Your task to perform on an android device: Open the calendar app, open the side menu, and click the "Day" option Image 0: 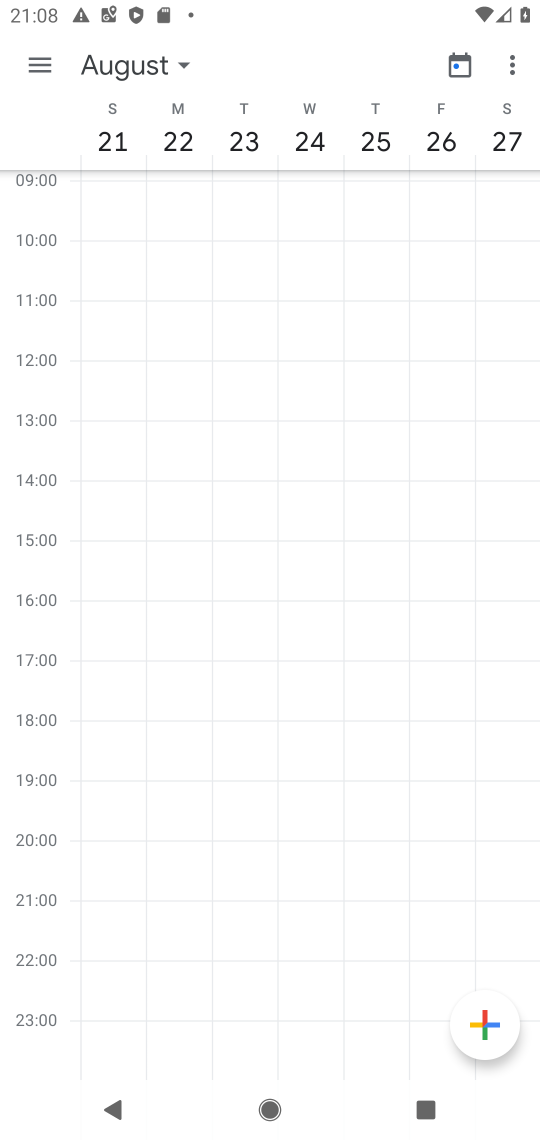
Step 0: click (38, 56)
Your task to perform on an android device: Open the calendar app, open the side menu, and click the "Day" option Image 1: 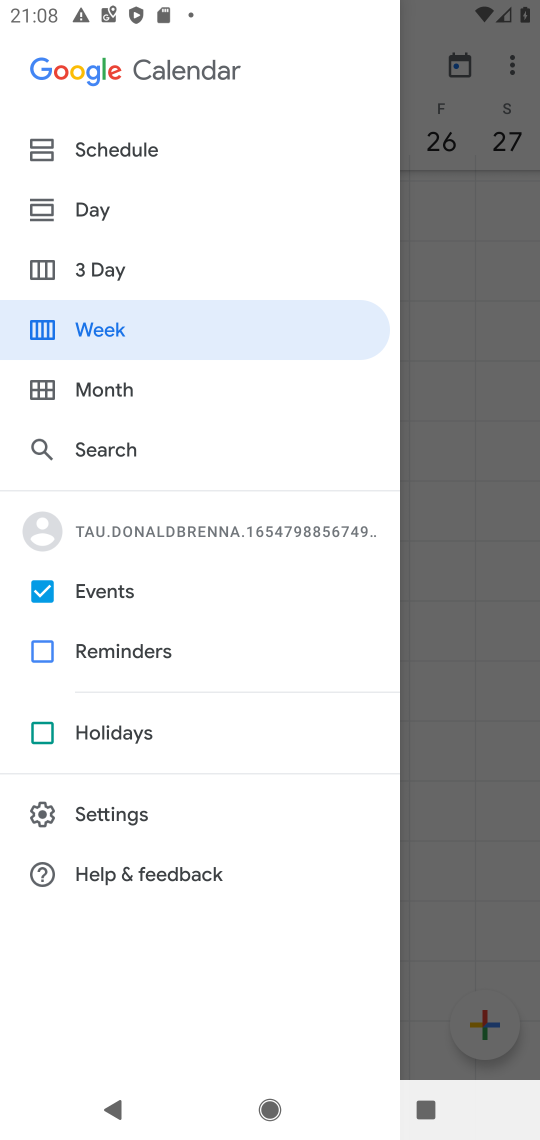
Step 1: click (107, 201)
Your task to perform on an android device: Open the calendar app, open the side menu, and click the "Day" option Image 2: 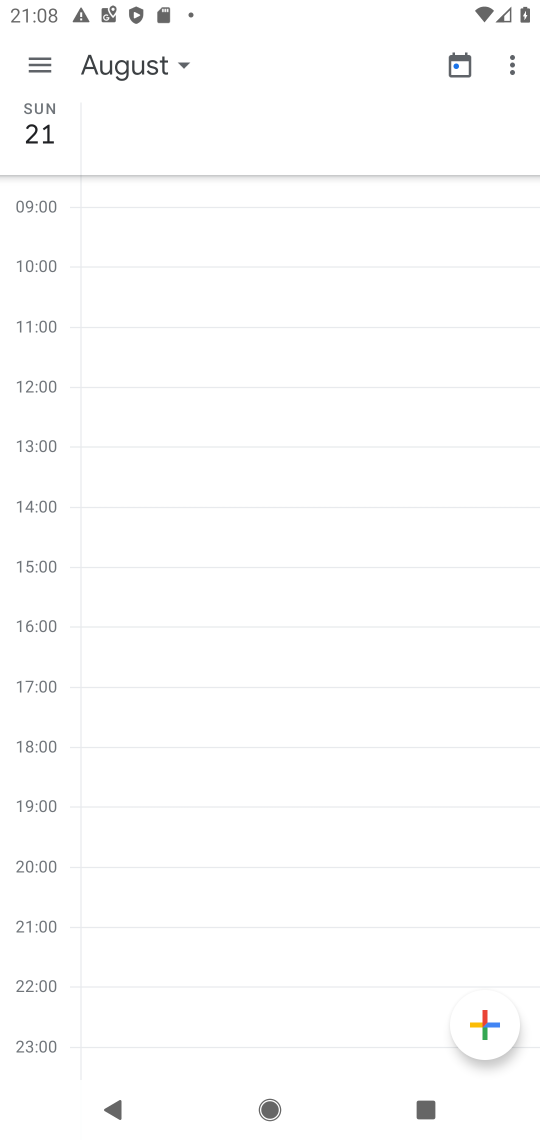
Step 2: task complete